Your task to perform on an android device: Search for Italian restaurants on Maps Image 0: 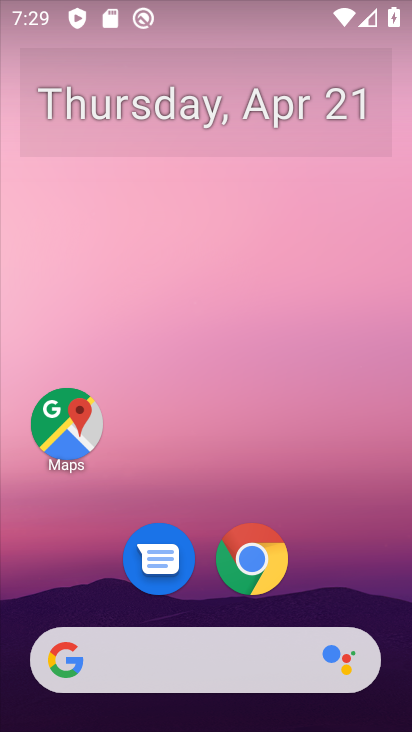
Step 0: drag from (387, 574) to (402, 70)
Your task to perform on an android device: Search for Italian restaurants on Maps Image 1: 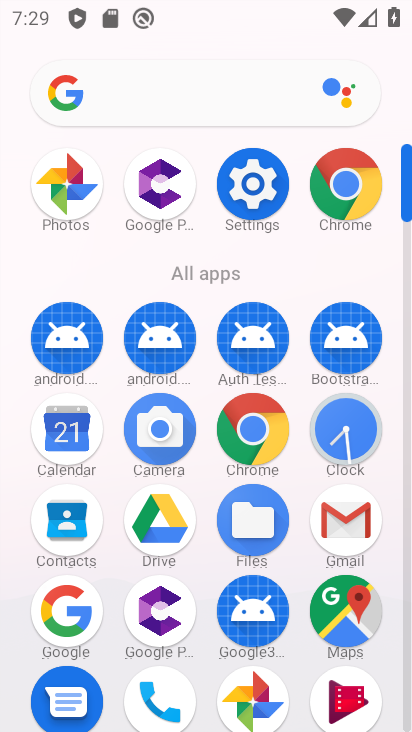
Step 1: click (338, 614)
Your task to perform on an android device: Search for Italian restaurants on Maps Image 2: 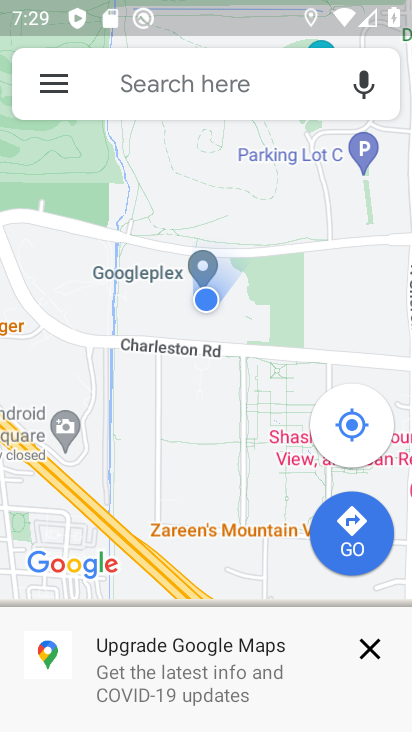
Step 2: click (232, 88)
Your task to perform on an android device: Search for Italian restaurants on Maps Image 3: 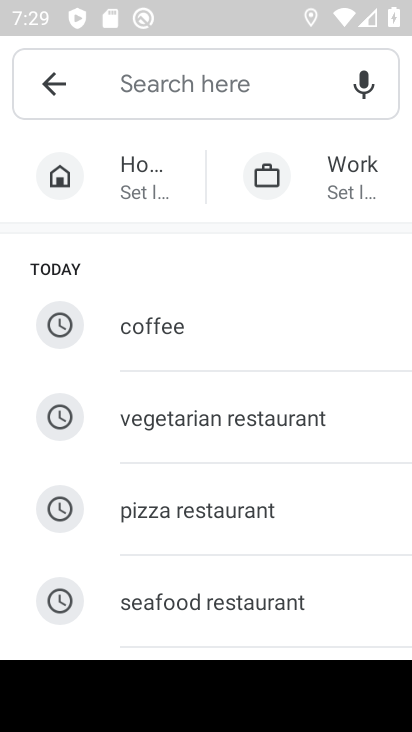
Step 3: type "italian restaurants "
Your task to perform on an android device: Search for Italian restaurants on Maps Image 4: 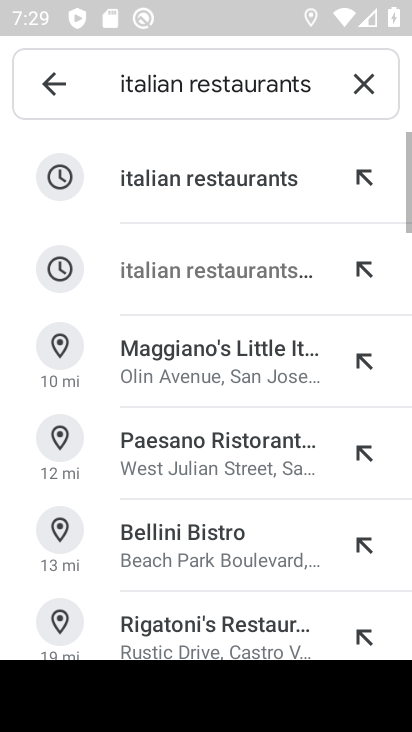
Step 4: click (209, 172)
Your task to perform on an android device: Search for Italian restaurants on Maps Image 5: 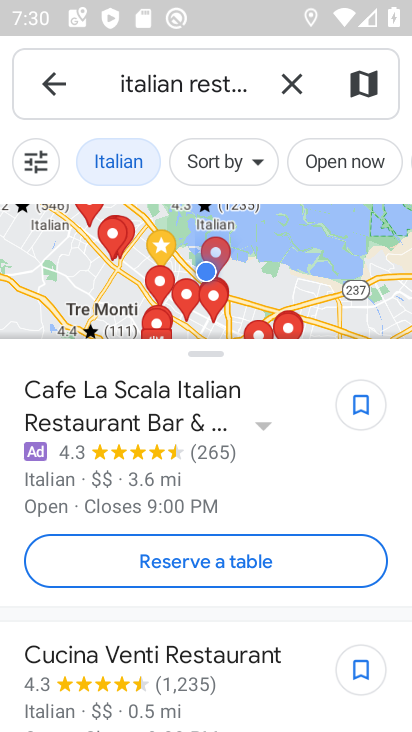
Step 5: task complete